Your task to perform on an android device: Do I have any events tomorrow? Image 0: 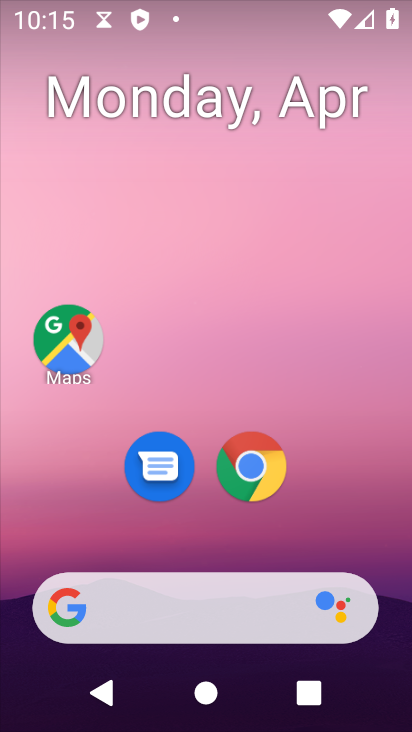
Step 0: drag from (226, 549) to (198, 85)
Your task to perform on an android device: Do I have any events tomorrow? Image 1: 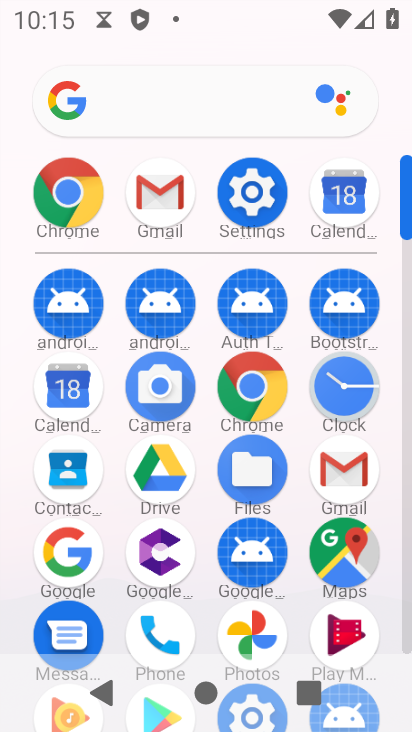
Step 1: click (70, 387)
Your task to perform on an android device: Do I have any events tomorrow? Image 2: 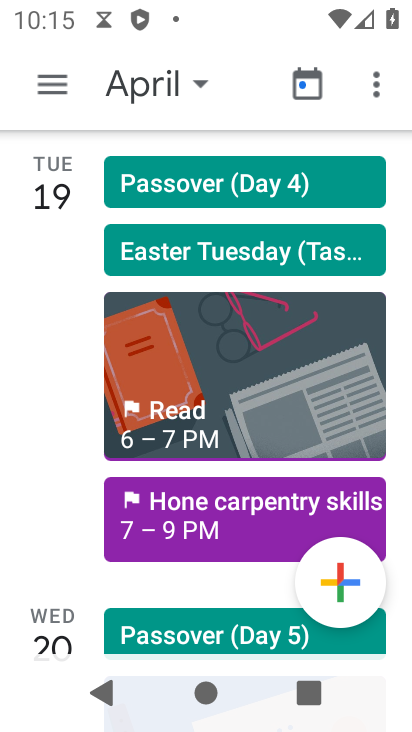
Step 2: click (206, 80)
Your task to perform on an android device: Do I have any events tomorrow? Image 3: 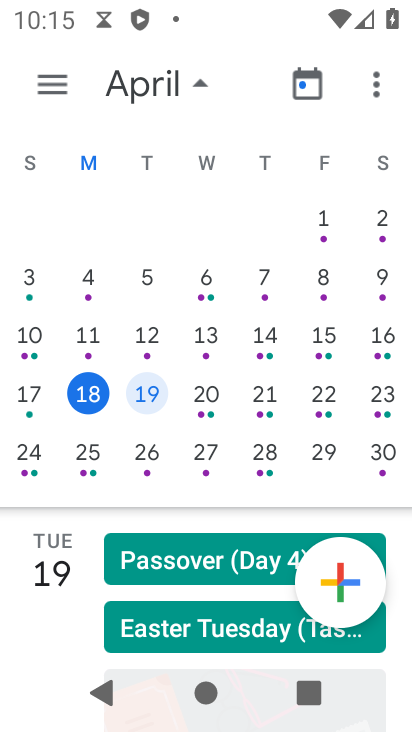
Step 3: click (304, 87)
Your task to perform on an android device: Do I have any events tomorrow? Image 4: 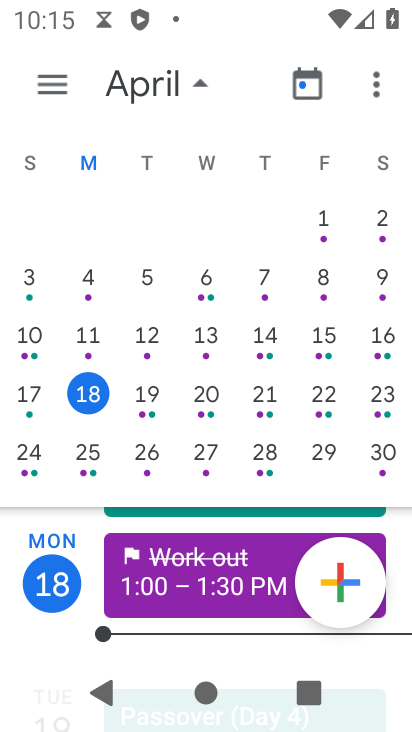
Step 4: click (148, 399)
Your task to perform on an android device: Do I have any events tomorrow? Image 5: 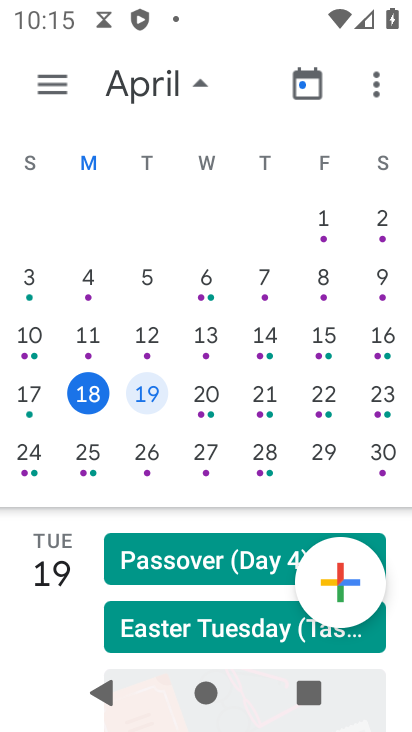
Step 5: task complete